Your task to perform on an android device: turn off smart reply in the gmail app Image 0: 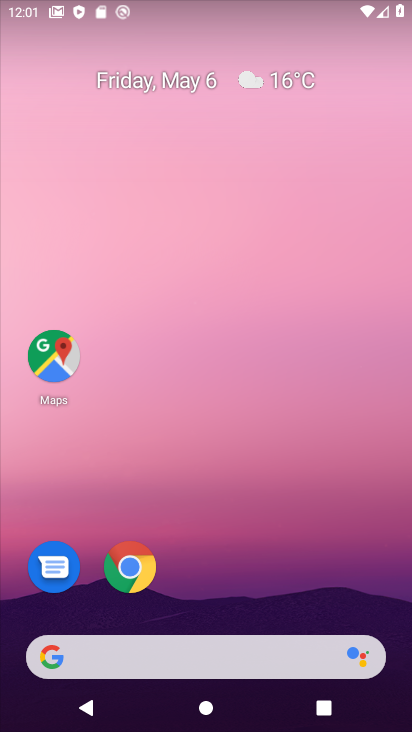
Step 0: drag from (273, 590) to (255, 13)
Your task to perform on an android device: turn off smart reply in the gmail app Image 1: 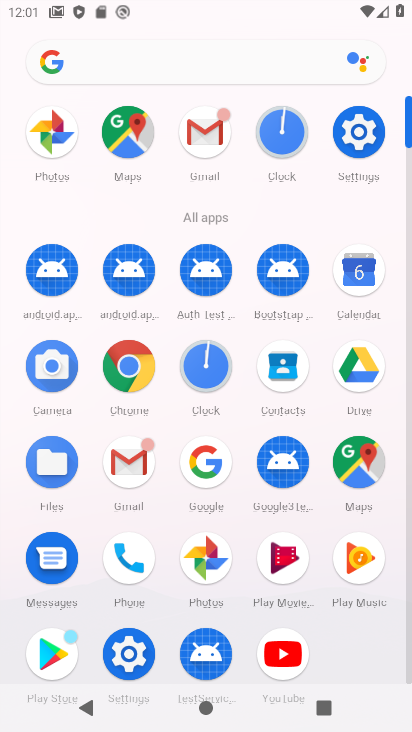
Step 1: click (190, 130)
Your task to perform on an android device: turn off smart reply in the gmail app Image 2: 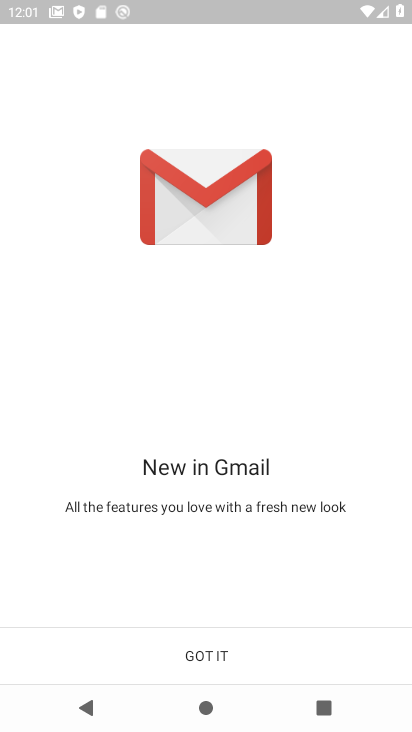
Step 2: click (208, 658)
Your task to perform on an android device: turn off smart reply in the gmail app Image 3: 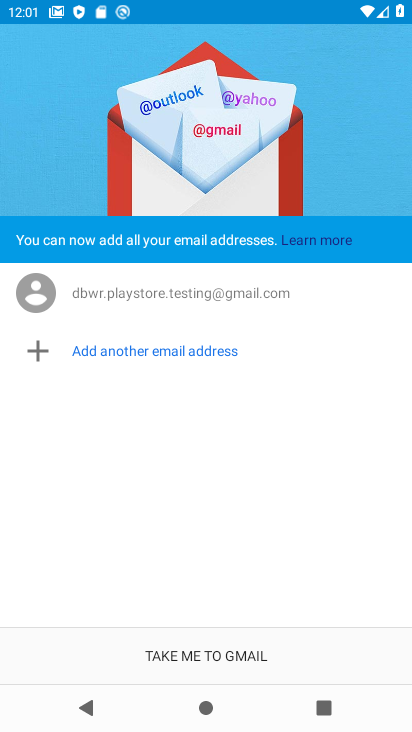
Step 3: click (208, 658)
Your task to perform on an android device: turn off smart reply in the gmail app Image 4: 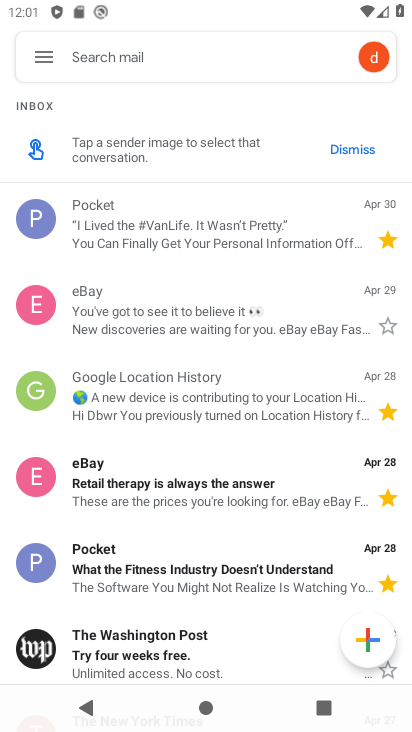
Step 4: click (50, 55)
Your task to perform on an android device: turn off smart reply in the gmail app Image 5: 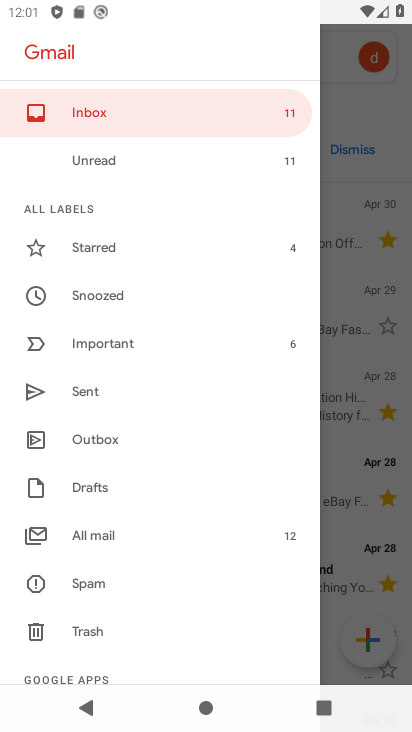
Step 5: drag from (180, 614) to (224, 265)
Your task to perform on an android device: turn off smart reply in the gmail app Image 6: 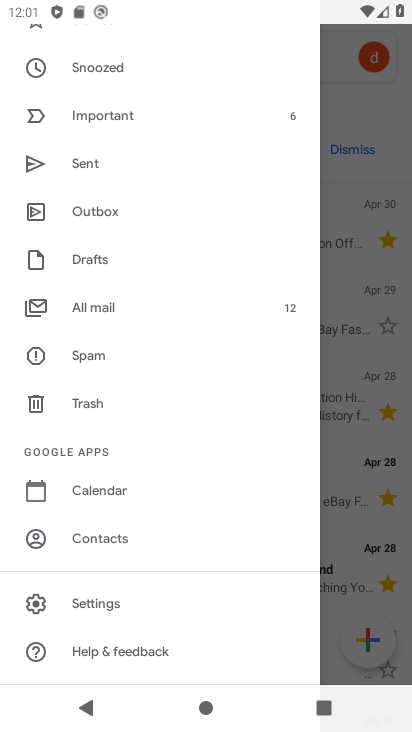
Step 6: click (125, 600)
Your task to perform on an android device: turn off smart reply in the gmail app Image 7: 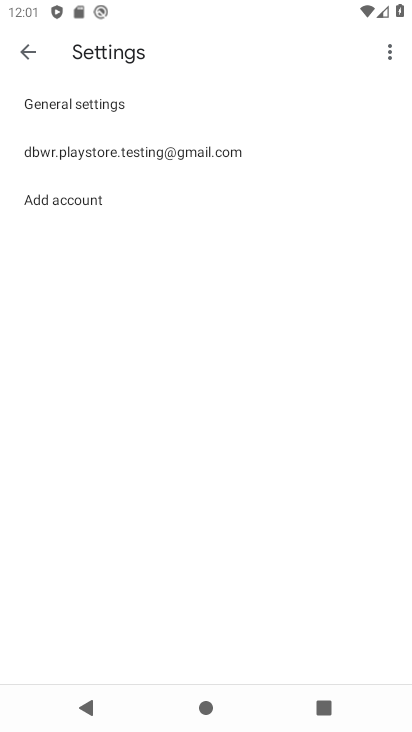
Step 7: click (109, 147)
Your task to perform on an android device: turn off smart reply in the gmail app Image 8: 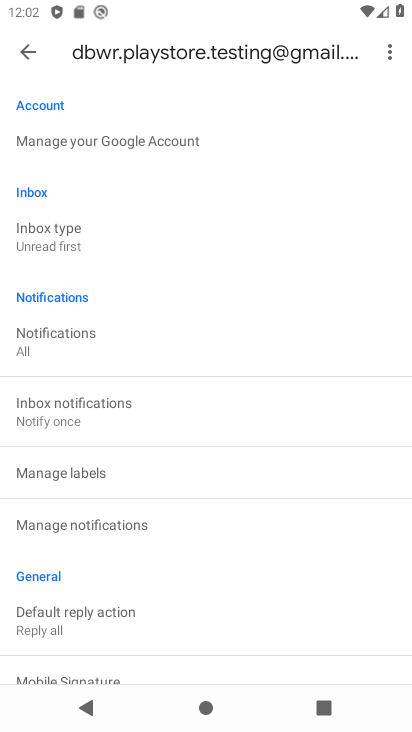
Step 8: drag from (122, 574) to (197, 164)
Your task to perform on an android device: turn off smart reply in the gmail app Image 9: 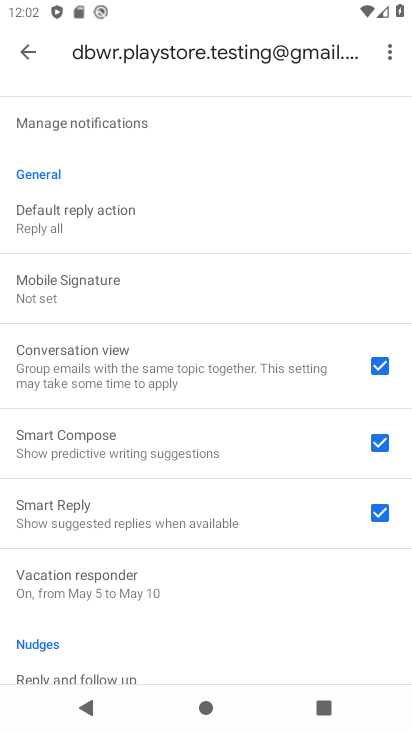
Step 9: drag from (241, 579) to (287, 340)
Your task to perform on an android device: turn off smart reply in the gmail app Image 10: 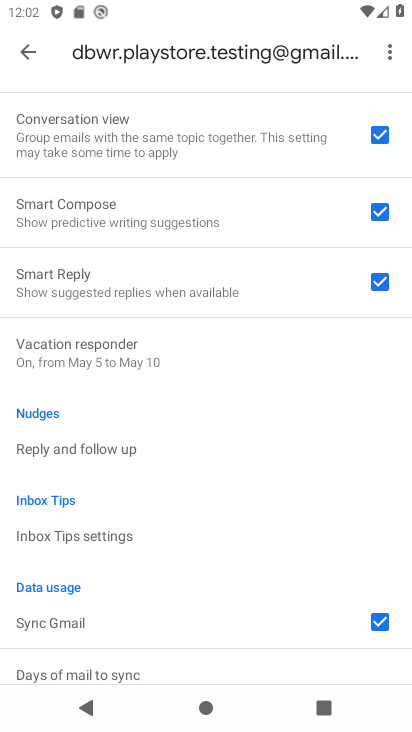
Step 10: click (382, 278)
Your task to perform on an android device: turn off smart reply in the gmail app Image 11: 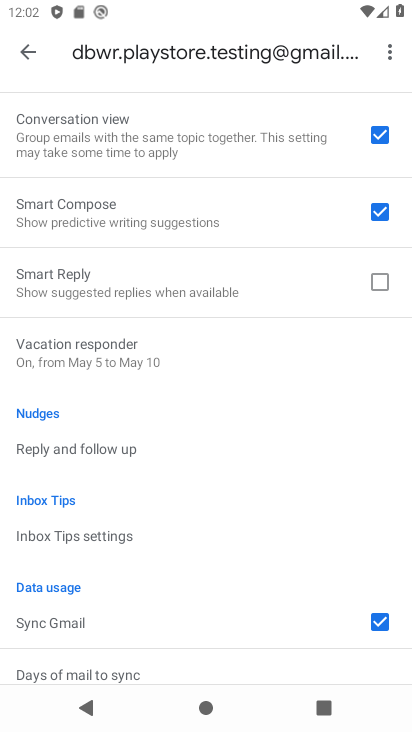
Step 11: task complete